Your task to perform on an android device: Open CNN.com Image 0: 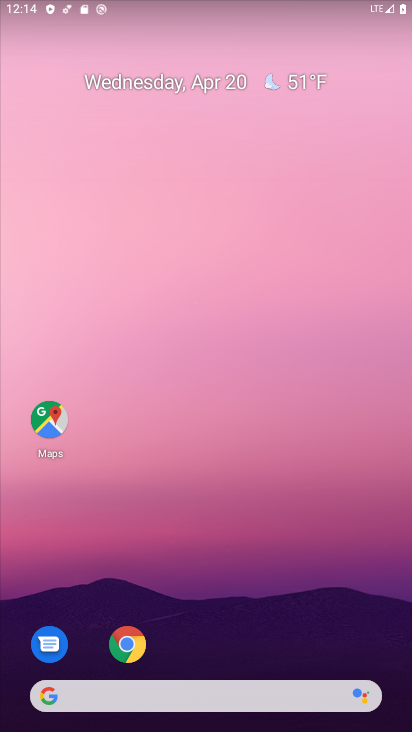
Step 0: click (126, 644)
Your task to perform on an android device: Open CNN.com Image 1: 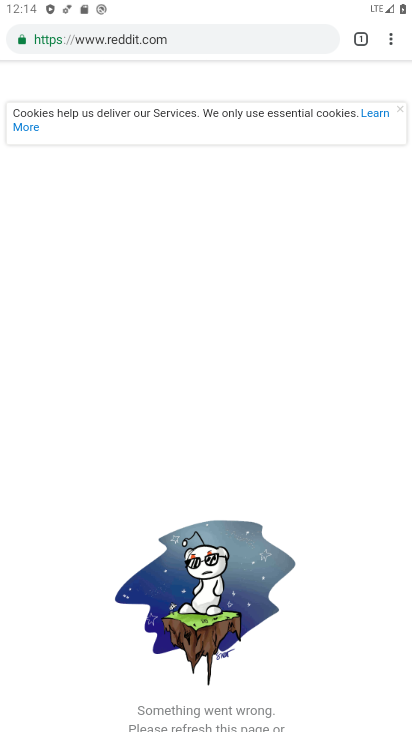
Step 1: click (151, 36)
Your task to perform on an android device: Open CNN.com Image 2: 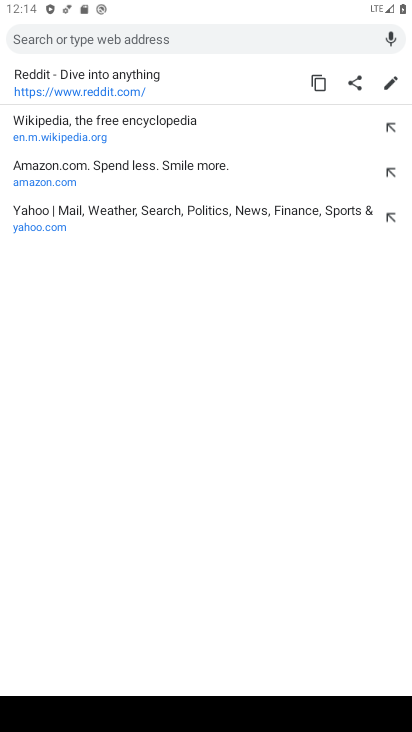
Step 2: type "CNN.com"
Your task to perform on an android device: Open CNN.com Image 3: 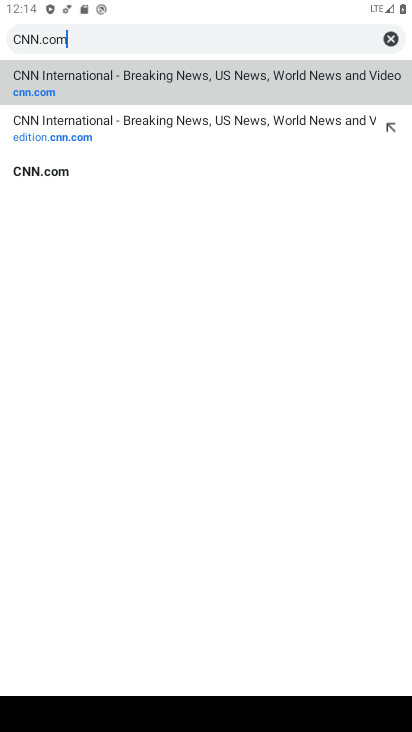
Step 3: click (88, 81)
Your task to perform on an android device: Open CNN.com Image 4: 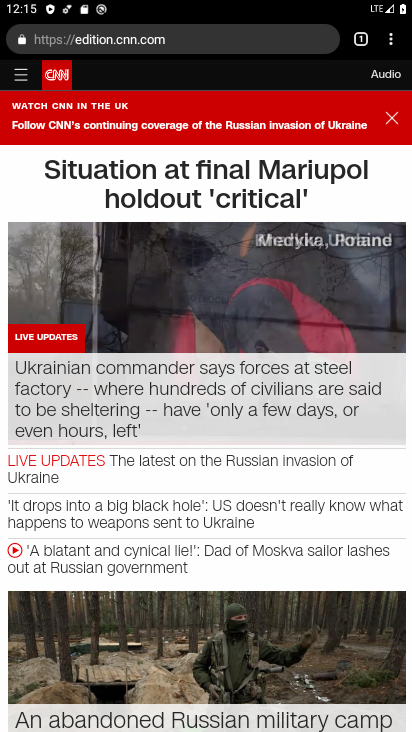
Step 4: task complete